Your task to perform on an android device: clear history in the chrome app Image 0: 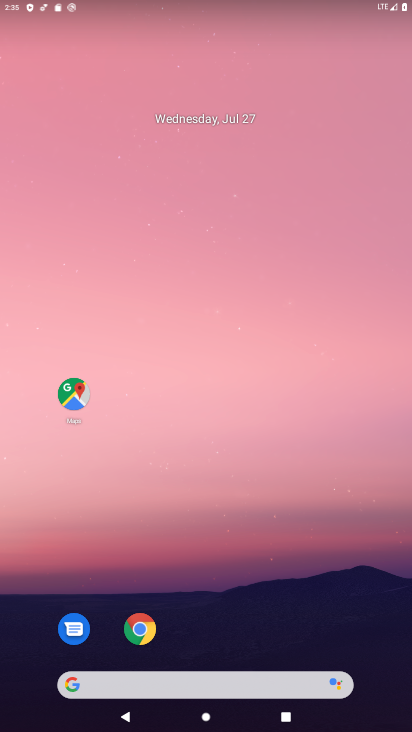
Step 0: click (143, 634)
Your task to perform on an android device: clear history in the chrome app Image 1: 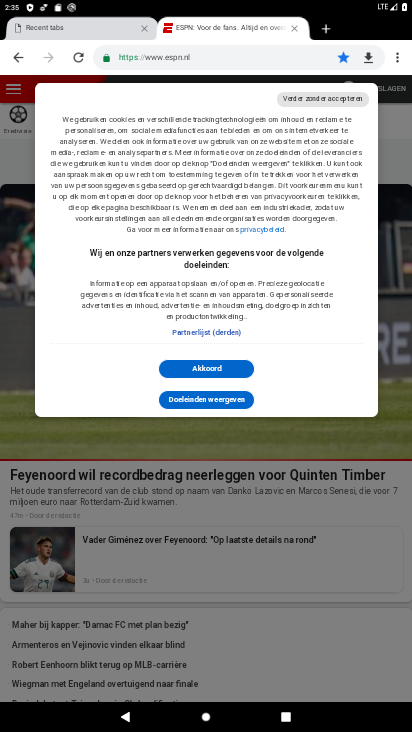
Step 1: click (403, 54)
Your task to perform on an android device: clear history in the chrome app Image 2: 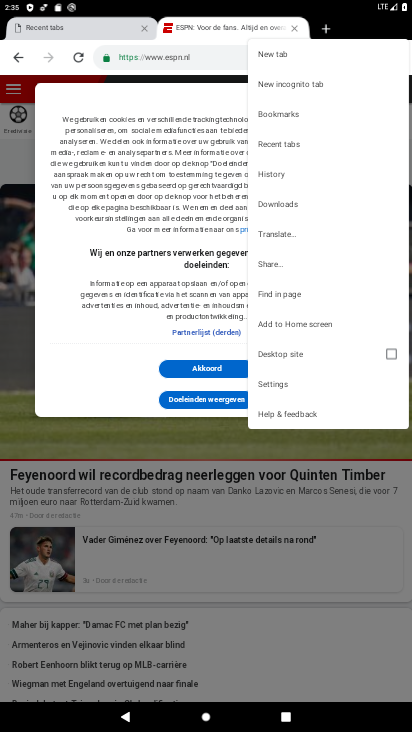
Step 2: click (275, 169)
Your task to perform on an android device: clear history in the chrome app Image 3: 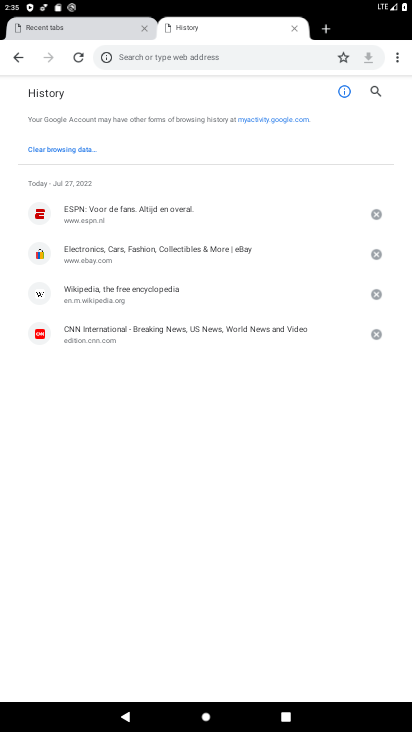
Step 3: click (87, 149)
Your task to perform on an android device: clear history in the chrome app Image 4: 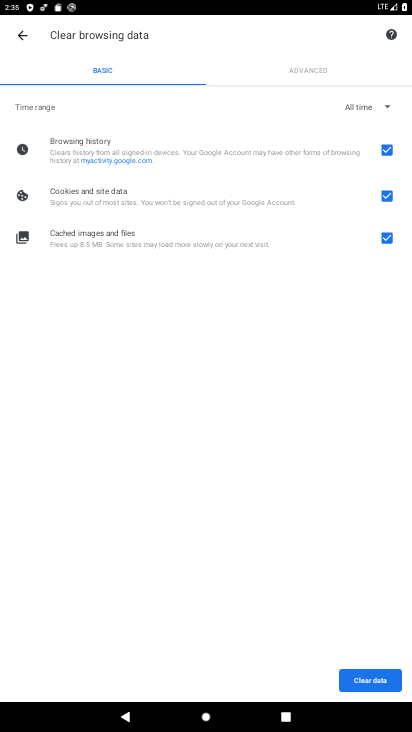
Step 4: click (366, 679)
Your task to perform on an android device: clear history in the chrome app Image 5: 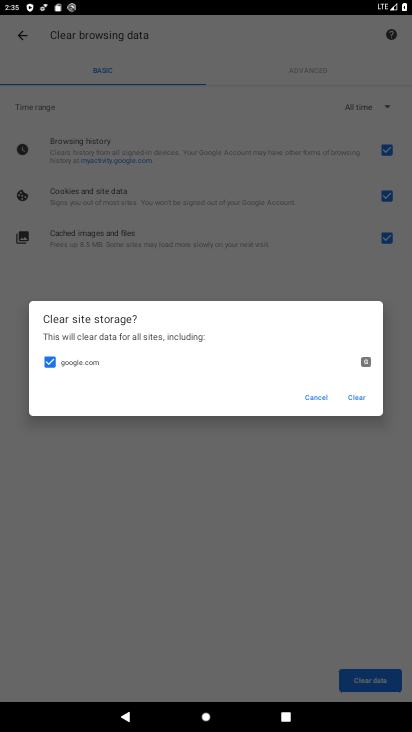
Step 5: click (368, 394)
Your task to perform on an android device: clear history in the chrome app Image 6: 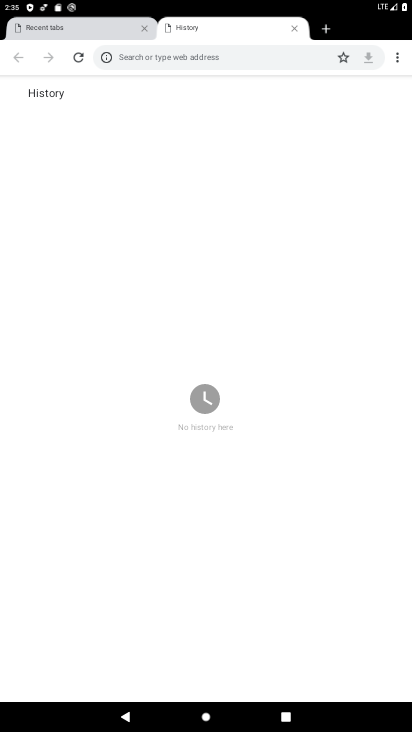
Step 6: task complete